Your task to perform on an android device: Do I have any events this weekend? Image 0: 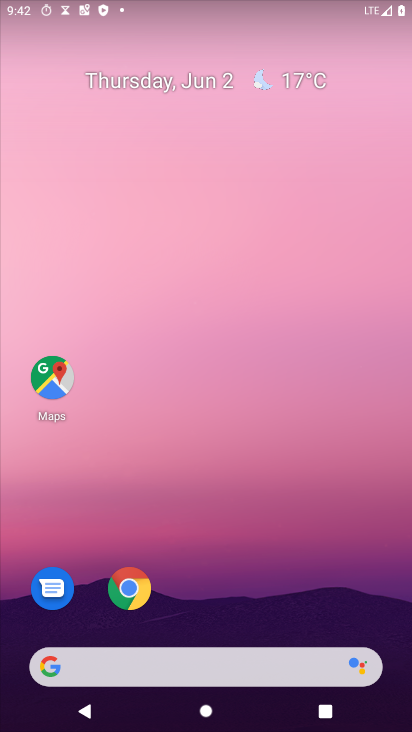
Step 0: drag from (228, 608) to (195, 64)
Your task to perform on an android device: Do I have any events this weekend? Image 1: 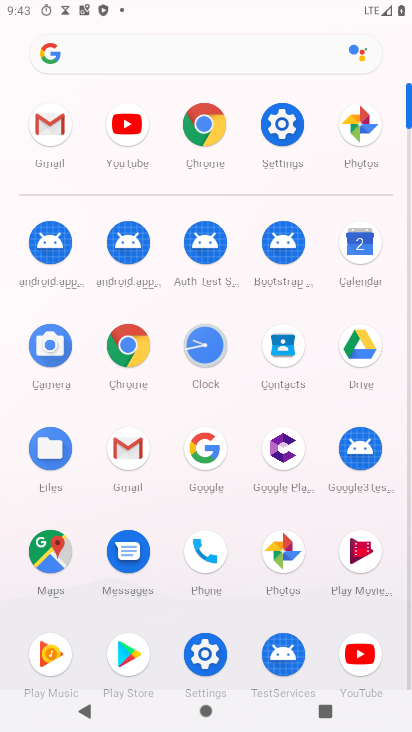
Step 1: click (354, 255)
Your task to perform on an android device: Do I have any events this weekend? Image 2: 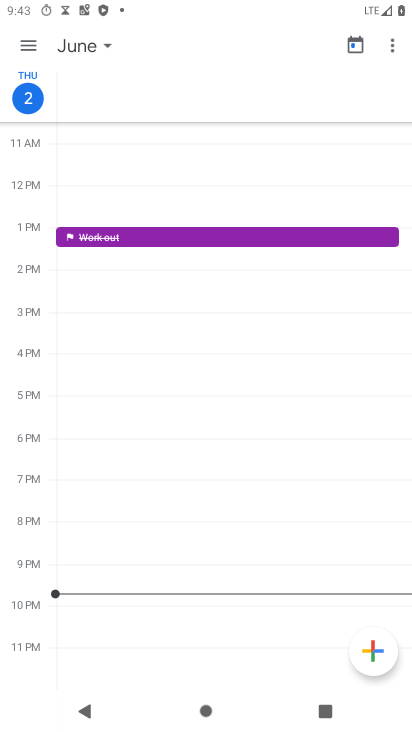
Step 2: click (19, 44)
Your task to perform on an android device: Do I have any events this weekend? Image 3: 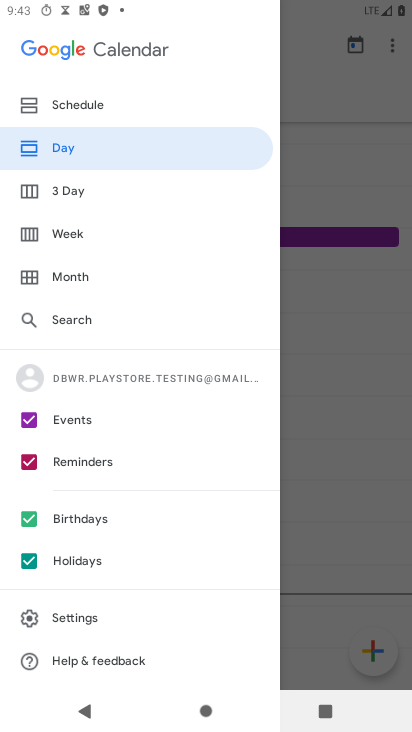
Step 3: click (107, 111)
Your task to perform on an android device: Do I have any events this weekend? Image 4: 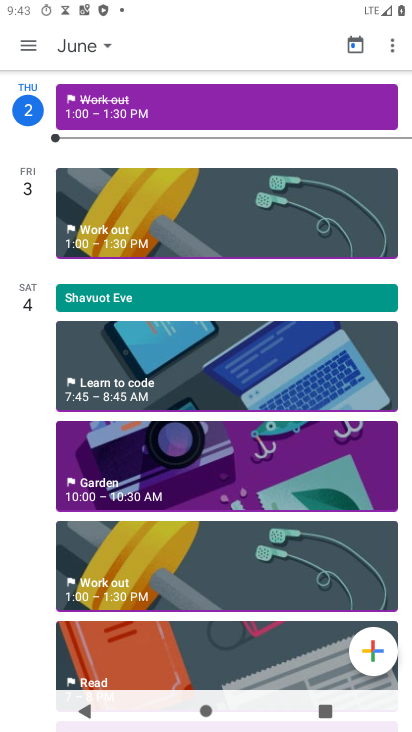
Step 4: click (118, 290)
Your task to perform on an android device: Do I have any events this weekend? Image 5: 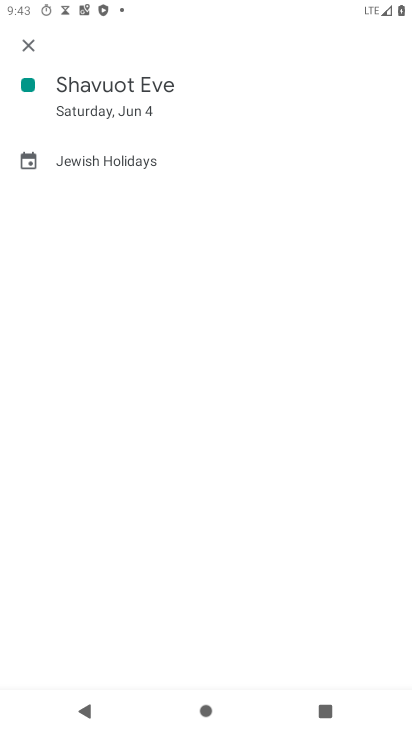
Step 5: task complete